Your task to perform on an android device: Open privacy settings Image 0: 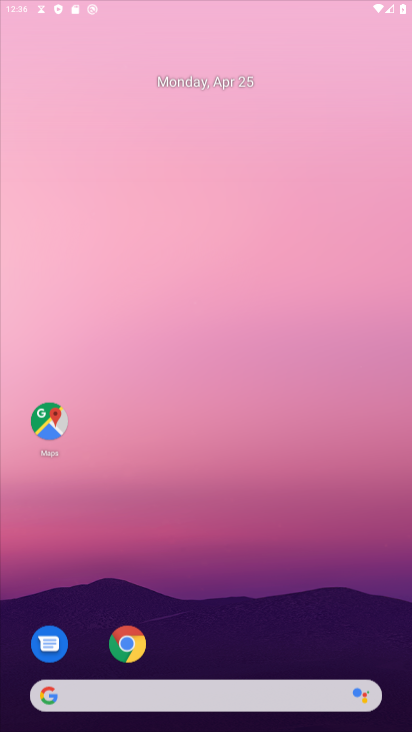
Step 0: drag from (347, 645) to (338, 78)
Your task to perform on an android device: Open privacy settings Image 1: 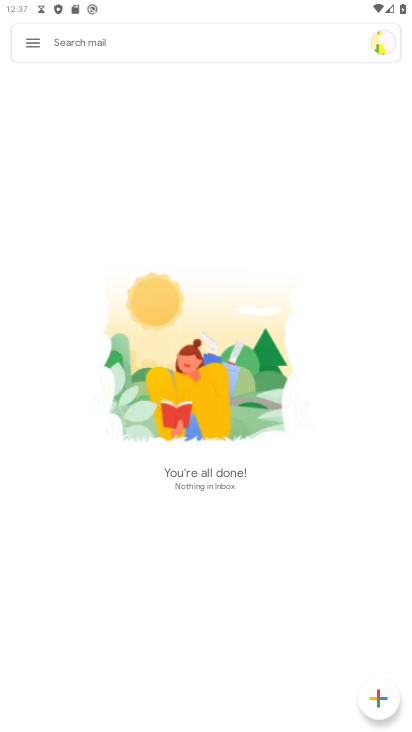
Step 1: press home button
Your task to perform on an android device: Open privacy settings Image 2: 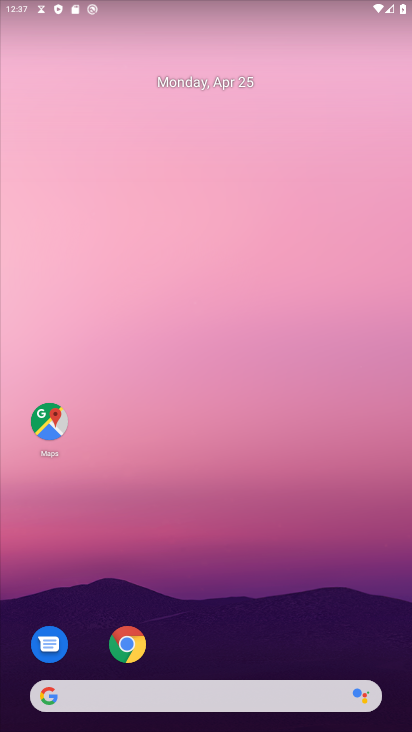
Step 2: drag from (291, 636) to (290, 6)
Your task to perform on an android device: Open privacy settings Image 3: 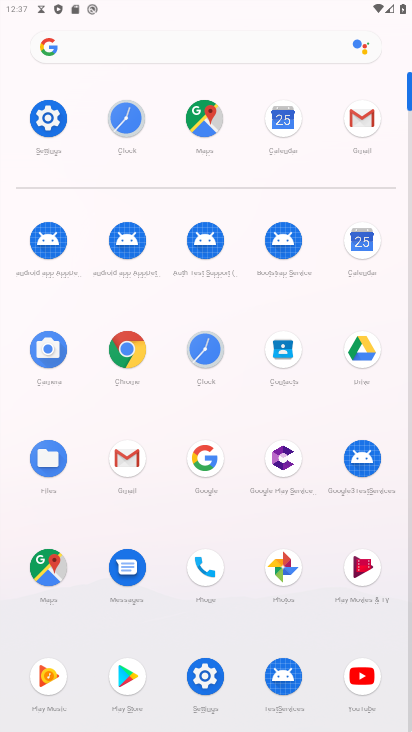
Step 3: click (45, 117)
Your task to perform on an android device: Open privacy settings Image 4: 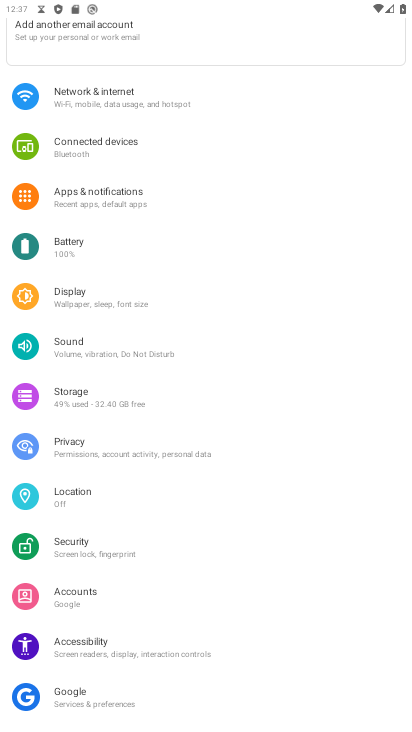
Step 4: click (75, 444)
Your task to perform on an android device: Open privacy settings Image 5: 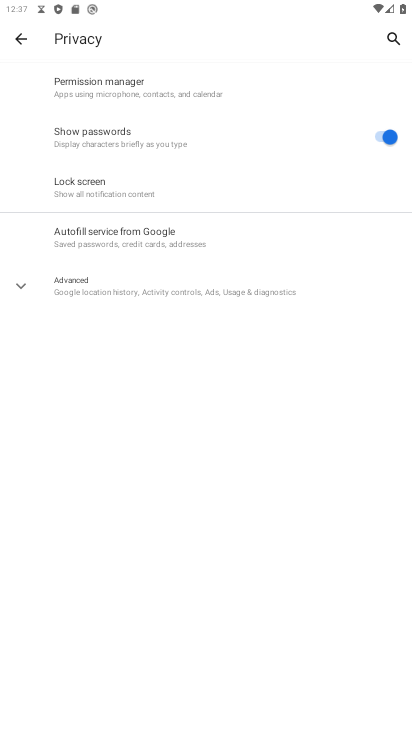
Step 5: task complete